Your task to perform on an android device: Go to network settings Image 0: 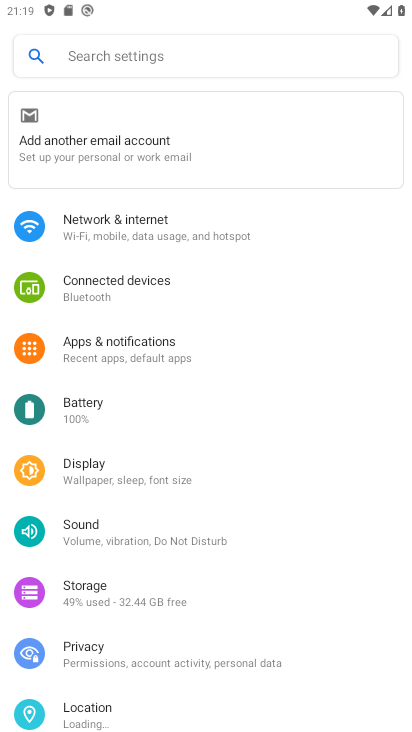
Step 0: press home button
Your task to perform on an android device: Go to network settings Image 1: 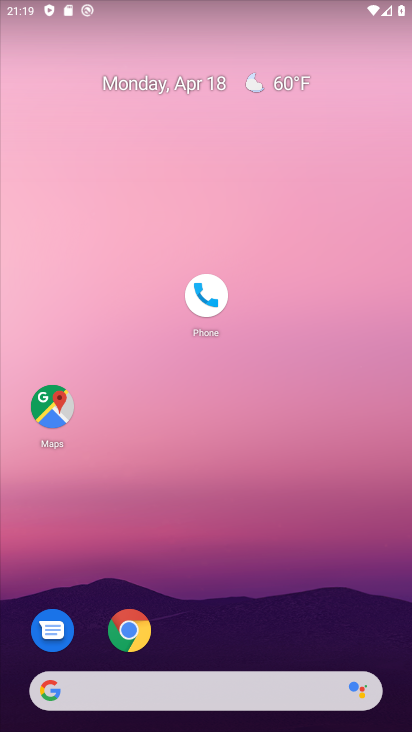
Step 1: click (287, 83)
Your task to perform on an android device: Go to network settings Image 2: 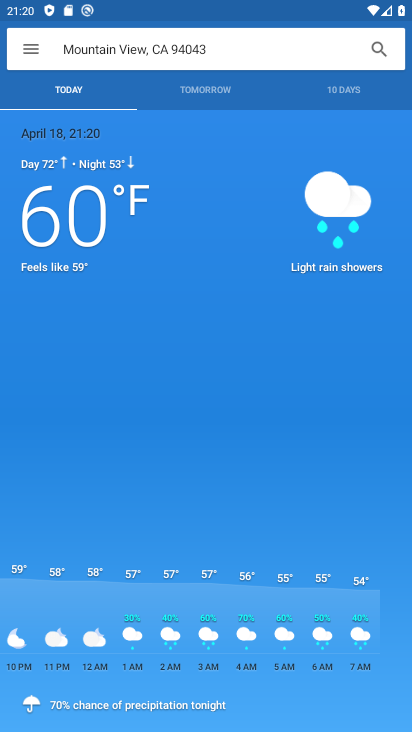
Step 2: press home button
Your task to perform on an android device: Go to network settings Image 3: 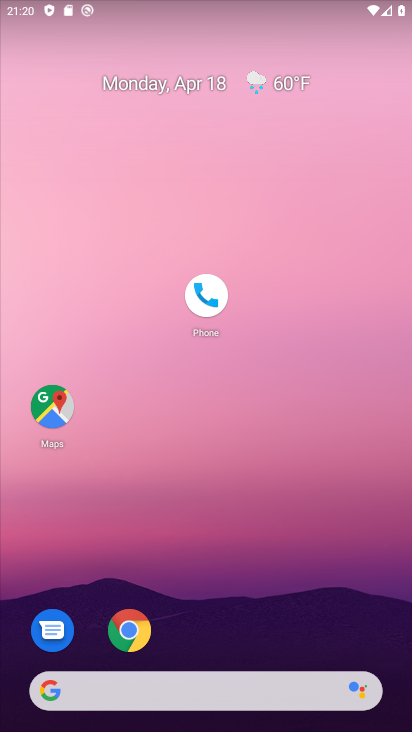
Step 3: drag from (318, 631) to (359, 192)
Your task to perform on an android device: Go to network settings Image 4: 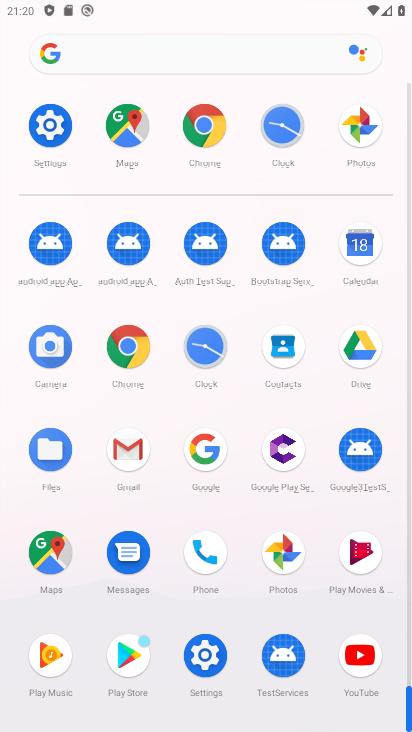
Step 4: click (54, 126)
Your task to perform on an android device: Go to network settings Image 5: 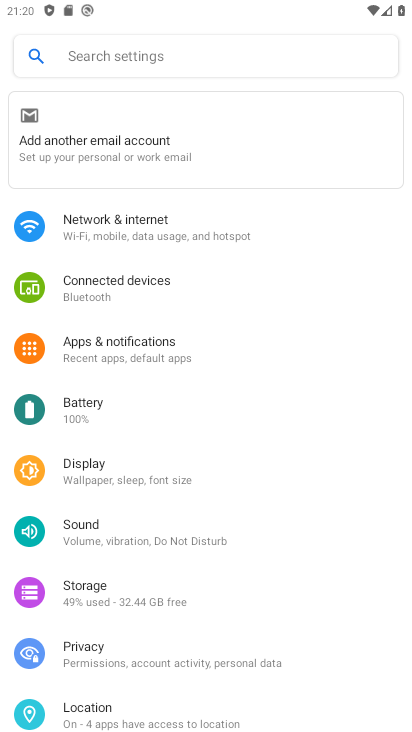
Step 5: click (162, 225)
Your task to perform on an android device: Go to network settings Image 6: 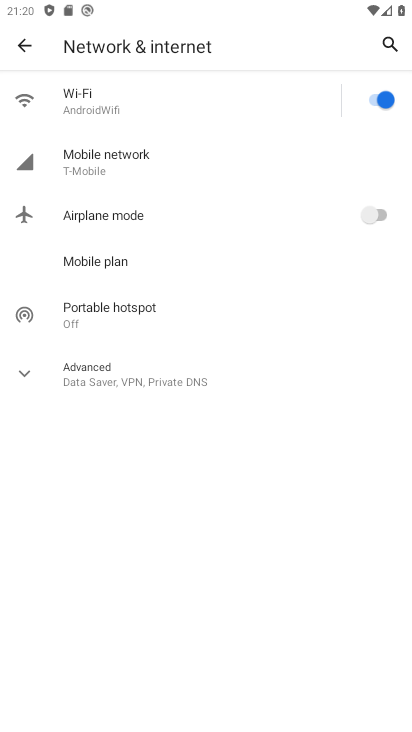
Step 6: click (107, 370)
Your task to perform on an android device: Go to network settings Image 7: 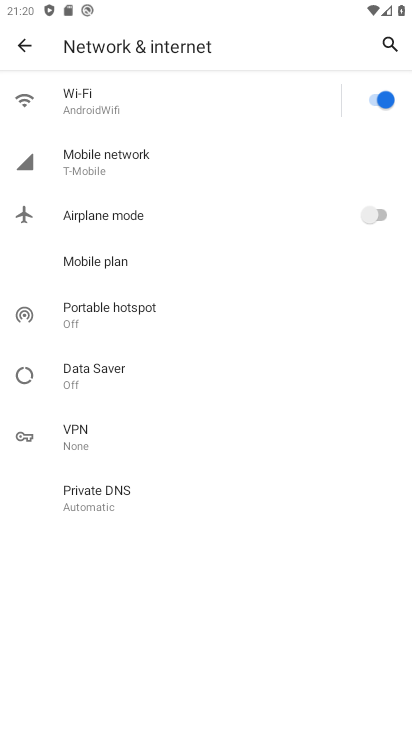
Step 7: task complete